Your task to perform on an android device: Open the Play Movies app and select the watchlist tab. Image 0: 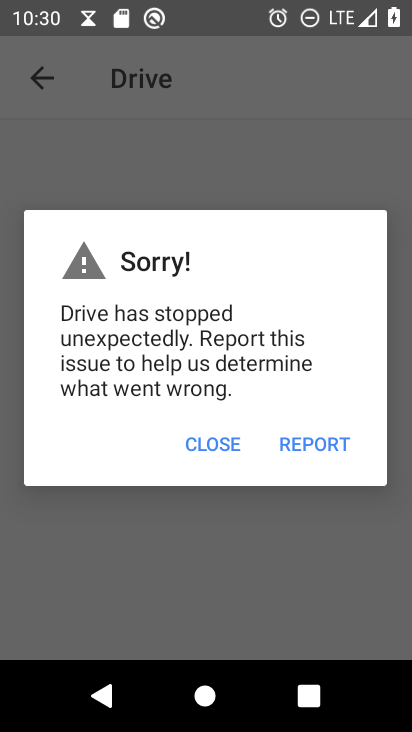
Step 0: press home button
Your task to perform on an android device: Open the Play Movies app and select the watchlist tab. Image 1: 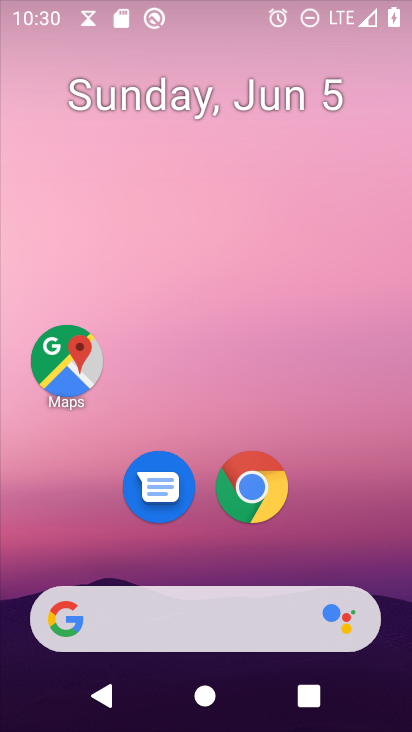
Step 1: drag from (339, 423) to (364, 200)
Your task to perform on an android device: Open the Play Movies app and select the watchlist tab. Image 2: 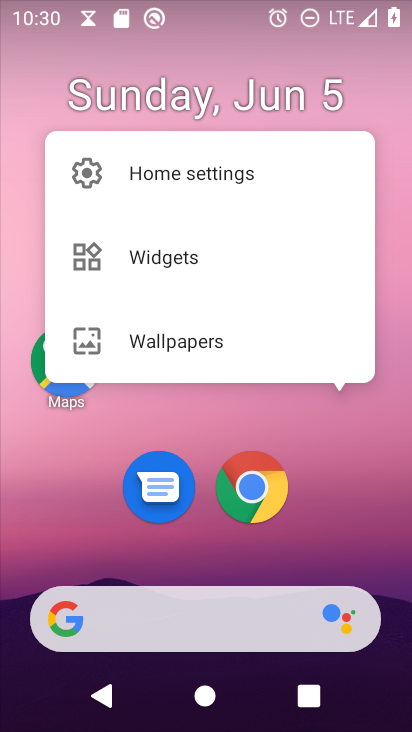
Step 2: click (301, 551)
Your task to perform on an android device: Open the Play Movies app and select the watchlist tab. Image 3: 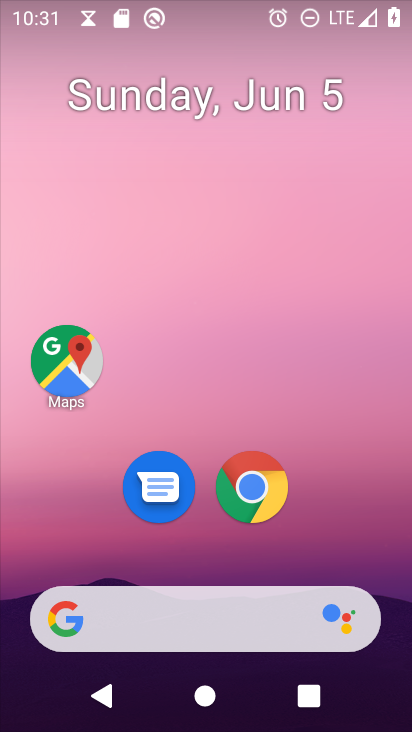
Step 3: drag from (213, 408) to (212, 102)
Your task to perform on an android device: Open the Play Movies app and select the watchlist tab. Image 4: 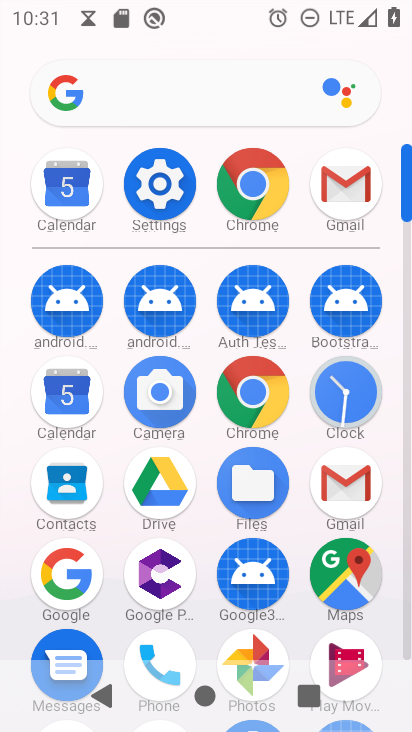
Step 4: click (359, 643)
Your task to perform on an android device: Open the Play Movies app and select the watchlist tab. Image 5: 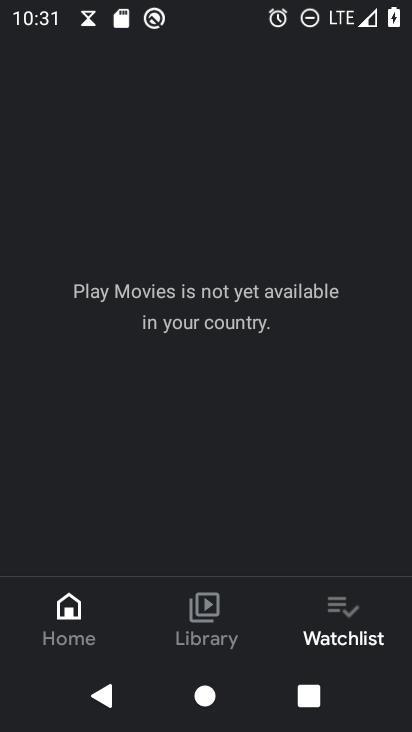
Step 5: click (335, 621)
Your task to perform on an android device: Open the Play Movies app and select the watchlist tab. Image 6: 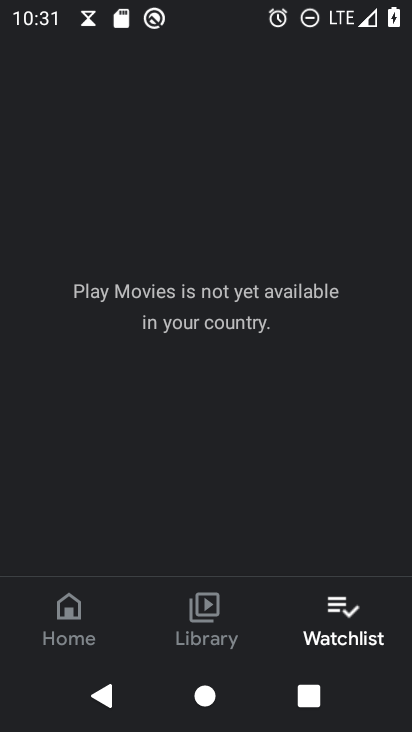
Step 6: task complete